Your task to perform on an android device: Open location settings Image 0: 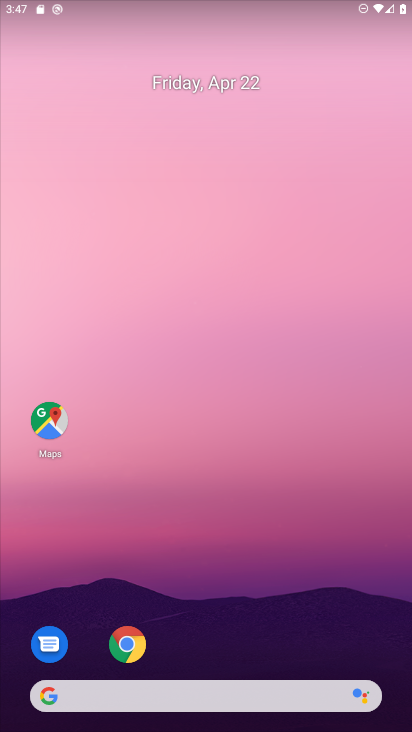
Step 0: drag from (248, 593) to (310, 39)
Your task to perform on an android device: Open location settings Image 1: 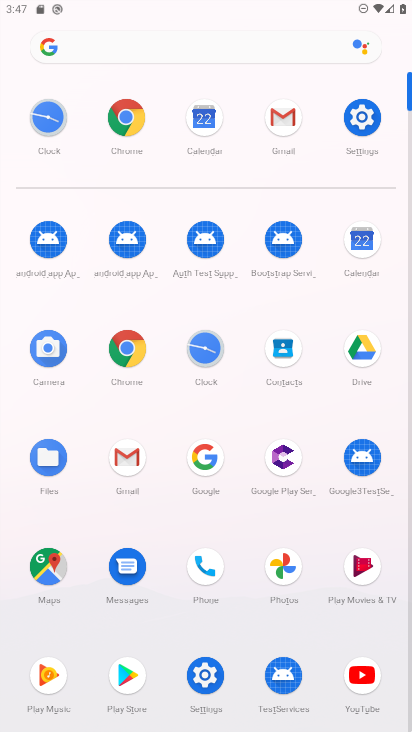
Step 1: click (368, 117)
Your task to perform on an android device: Open location settings Image 2: 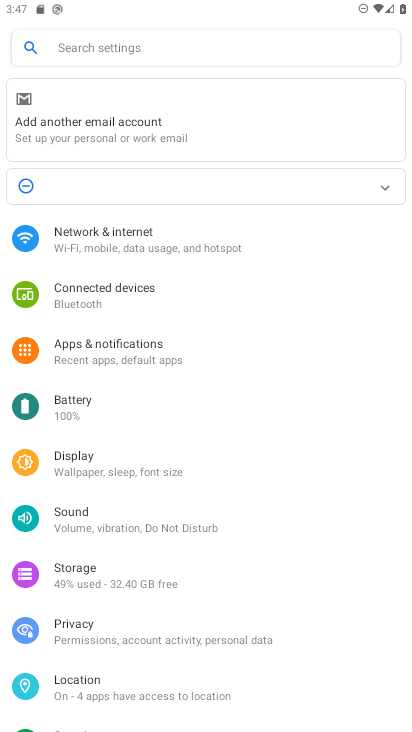
Step 2: drag from (131, 565) to (213, 209)
Your task to perform on an android device: Open location settings Image 3: 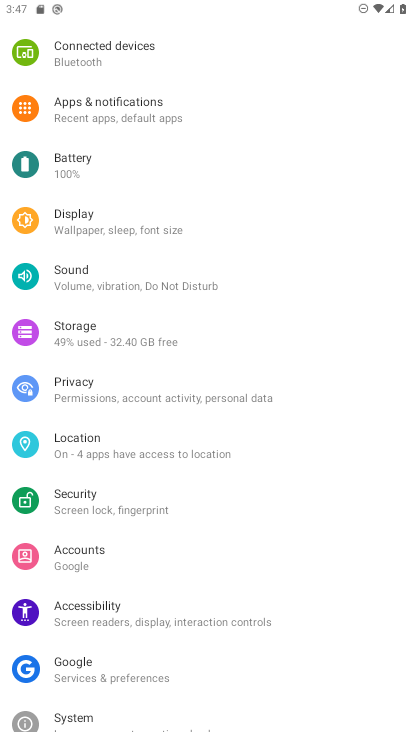
Step 3: click (100, 446)
Your task to perform on an android device: Open location settings Image 4: 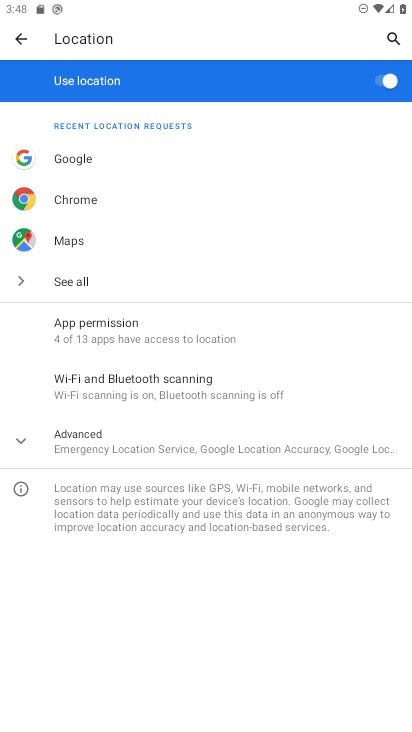
Step 4: click (146, 442)
Your task to perform on an android device: Open location settings Image 5: 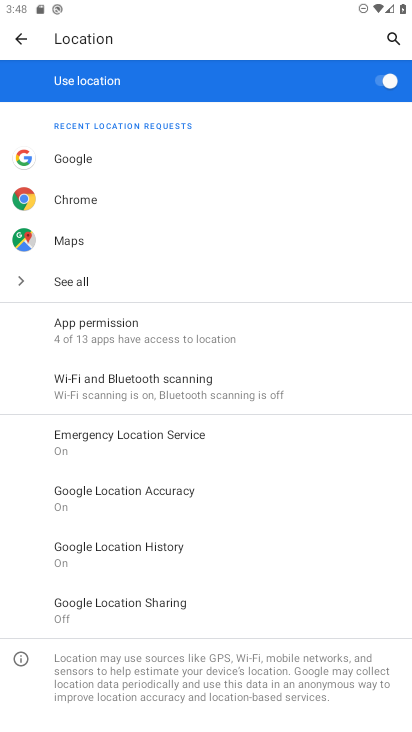
Step 5: task complete